Your task to perform on an android device: Open the Play Movies app and select the watchlist tab. Image 0: 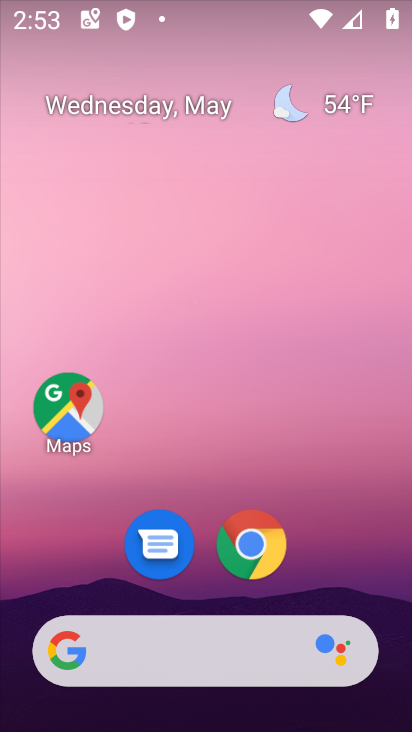
Step 0: drag from (320, 568) to (301, 98)
Your task to perform on an android device: Open the Play Movies app and select the watchlist tab. Image 1: 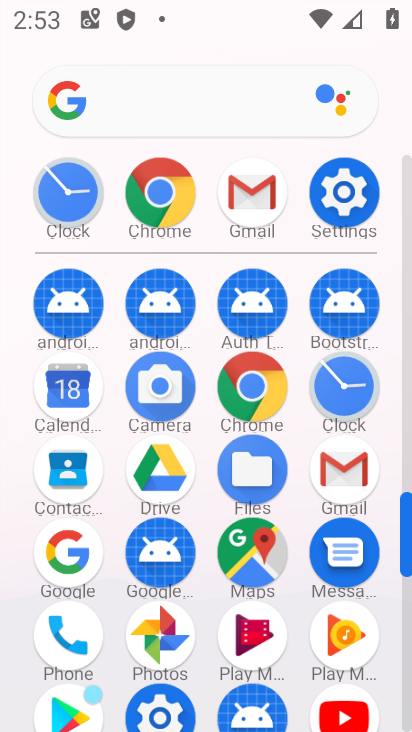
Step 1: click (247, 650)
Your task to perform on an android device: Open the Play Movies app and select the watchlist tab. Image 2: 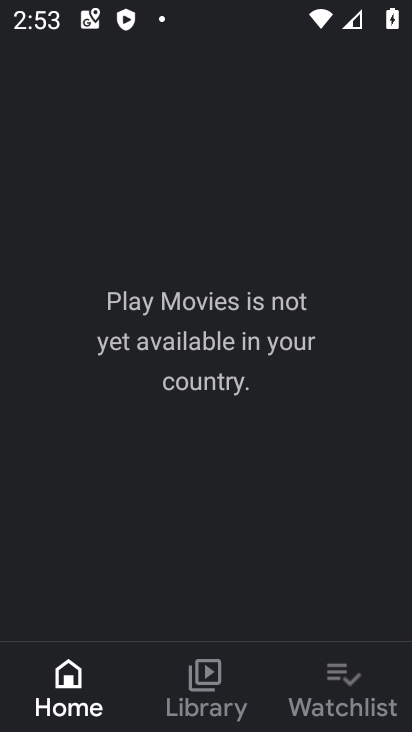
Step 2: click (374, 706)
Your task to perform on an android device: Open the Play Movies app and select the watchlist tab. Image 3: 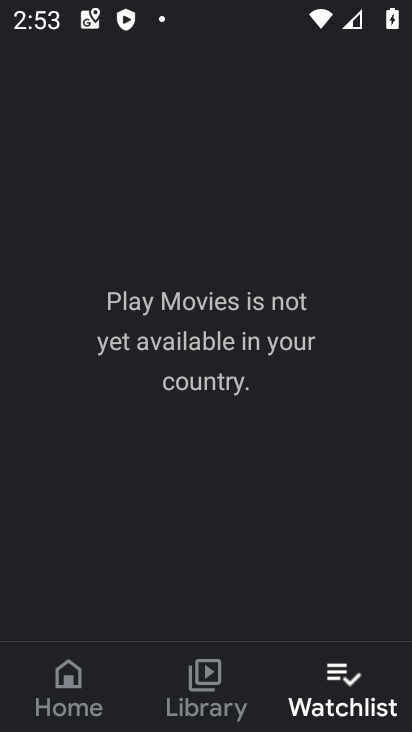
Step 3: task complete